Your task to perform on an android device: Open my contact list Image 0: 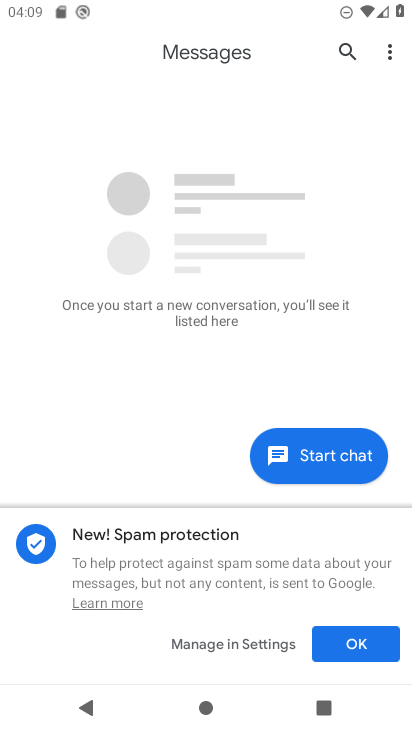
Step 0: press home button
Your task to perform on an android device: Open my contact list Image 1: 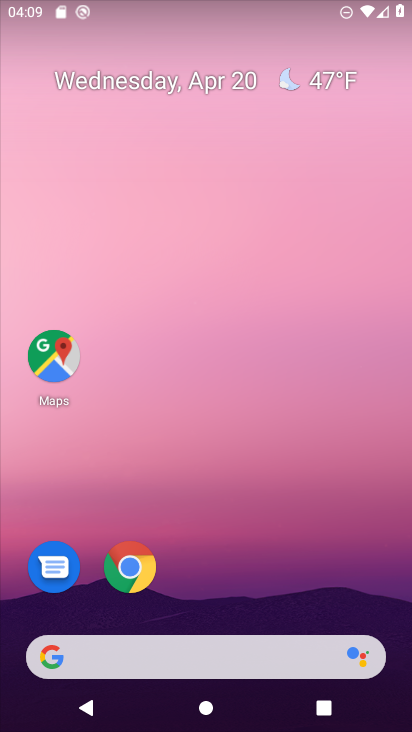
Step 1: drag from (200, 619) to (155, 70)
Your task to perform on an android device: Open my contact list Image 2: 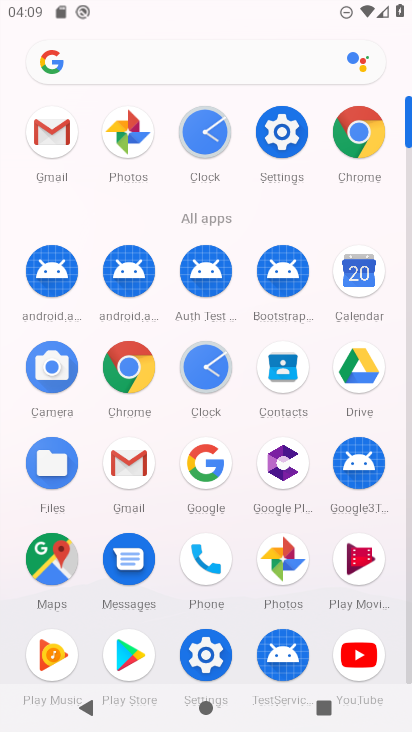
Step 2: click (206, 568)
Your task to perform on an android device: Open my contact list Image 3: 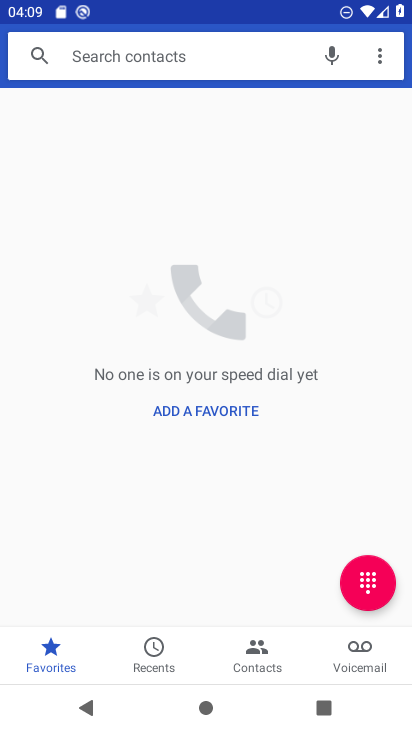
Step 3: click (254, 665)
Your task to perform on an android device: Open my contact list Image 4: 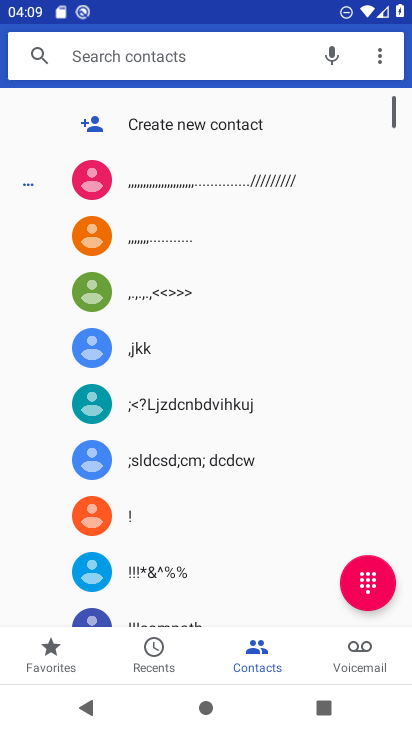
Step 4: task complete